Your task to perform on an android device: turn smart compose on in the gmail app Image 0: 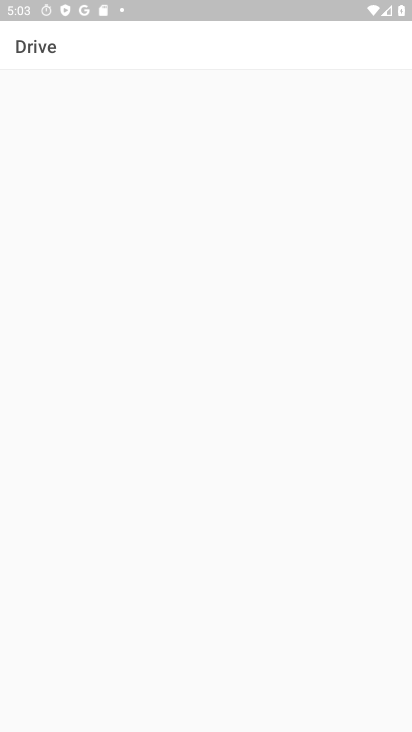
Step 0: press home button
Your task to perform on an android device: turn smart compose on in the gmail app Image 1: 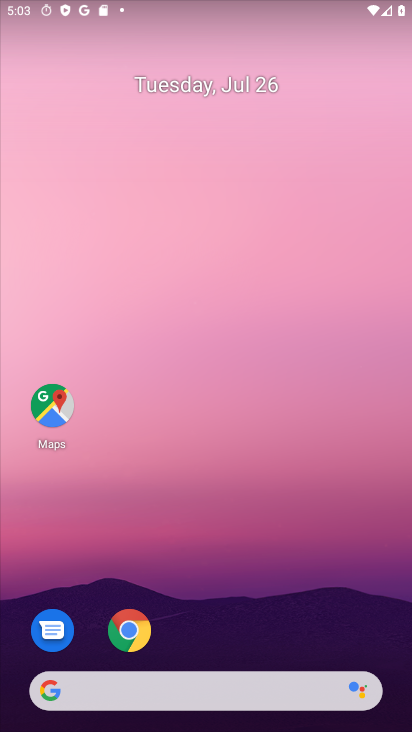
Step 1: drag from (285, 580) to (207, 50)
Your task to perform on an android device: turn smart compose on in the gmail app Image 2: 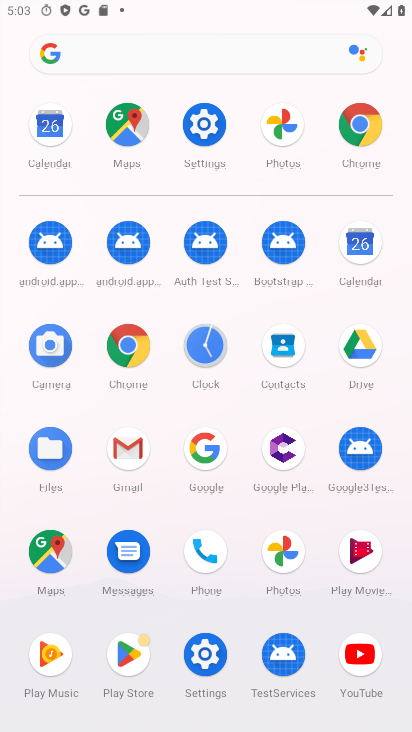
Step 2: click (129, 450)
Your task to perform on an android device: turn smart compose on in the gmail app Image 3: 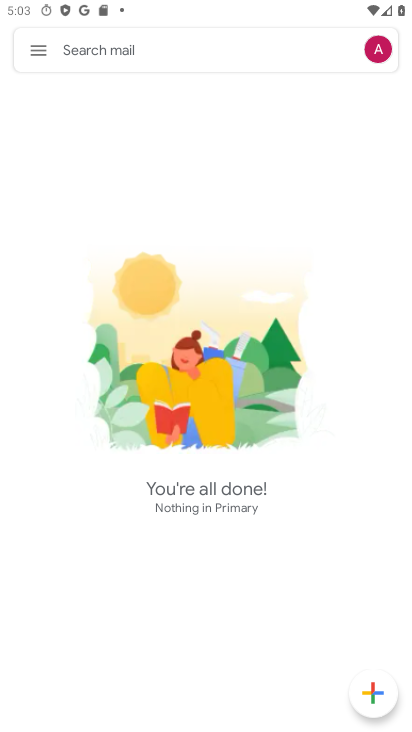
Step 3: click (30, 51)
Your task to perform on an android device: turn smart compose on in the gmail app Image 4: 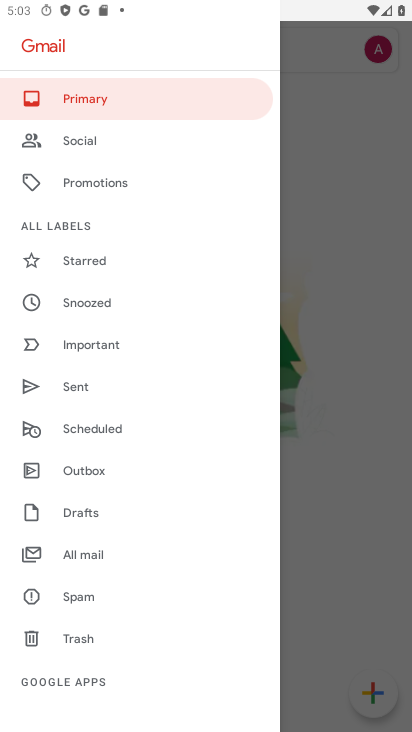
Step 4: drag from (87, 630) to (108, 198)
Your task to perform on an android device: turn smart compose on in the gmail app Image 5: 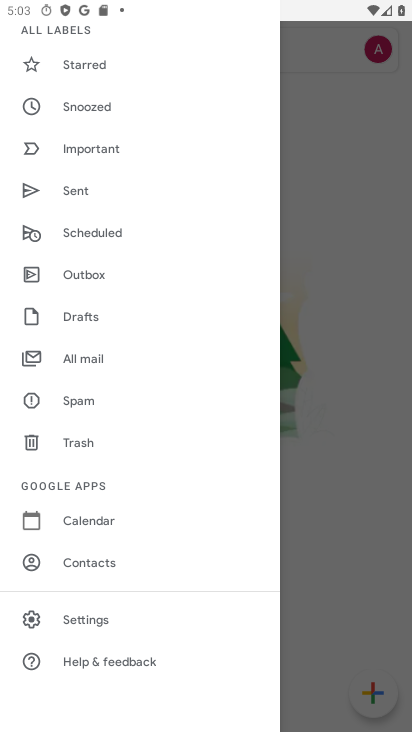
Step 5: click (84, 631)
Your task to perform on an android device: turn smart compose on in the gmail app Image 6: 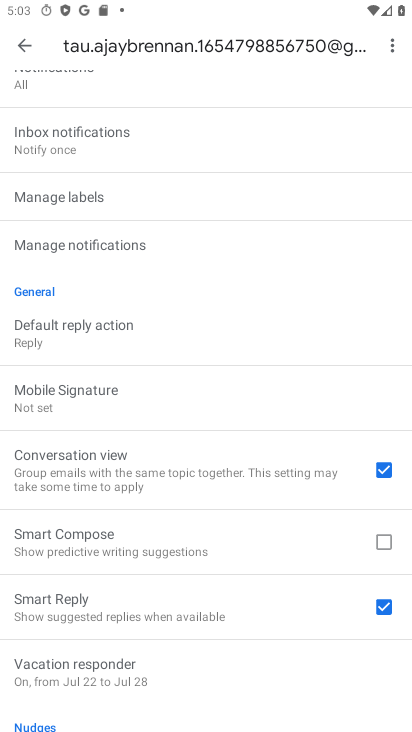
Step 6: click (380, 535)
Your task to perform on an android device: turn smart compose on in the gmail app Image 7: 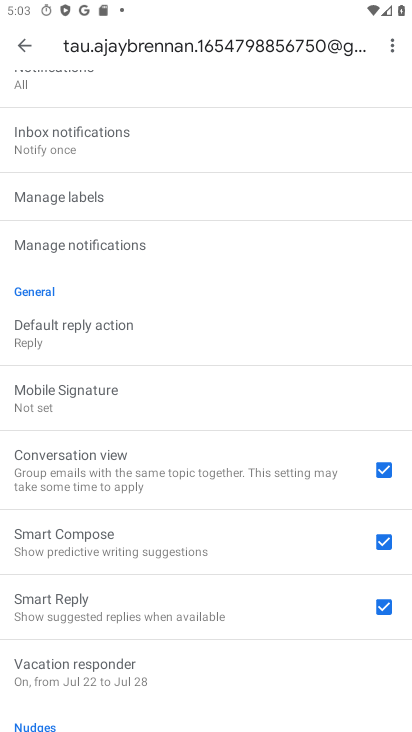
Step 7: task complete